Your task to perform on an android device: Show me popular games on the Play Store Image 0: 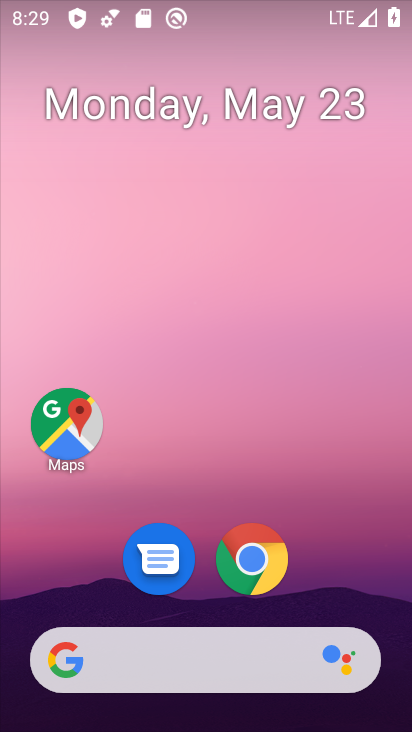
Step 0: drag from (215, 600) to (212, 135)
Your task to perform on an android device: Show me popular games on the Play Store Image 1: 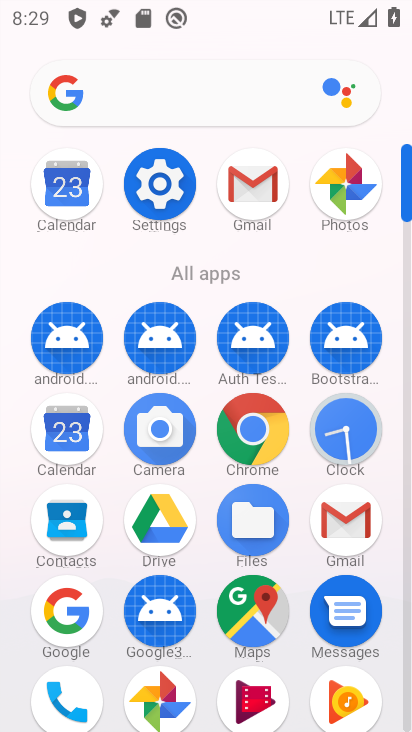
Step 1: drag from (294, 632) to (254, 196)
Your task to perform on an android device: Show me popular games on the Play Store Image 2: 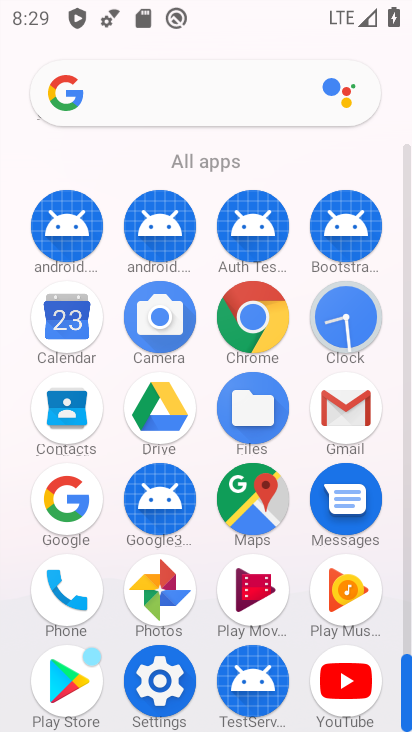
Step 2: click (63, 671)
Your task to perform on an android device: Show me popular games on the Play Store Image 3: 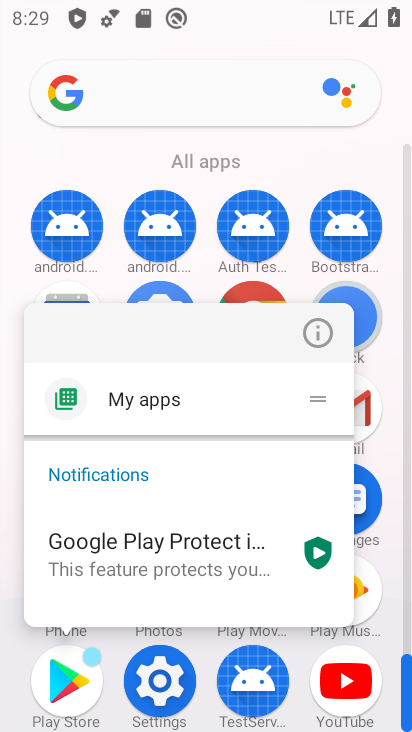
Step 3: click (47, 680)
Your task to perform on an android device: Show me popular games on the Play Store Image 4: 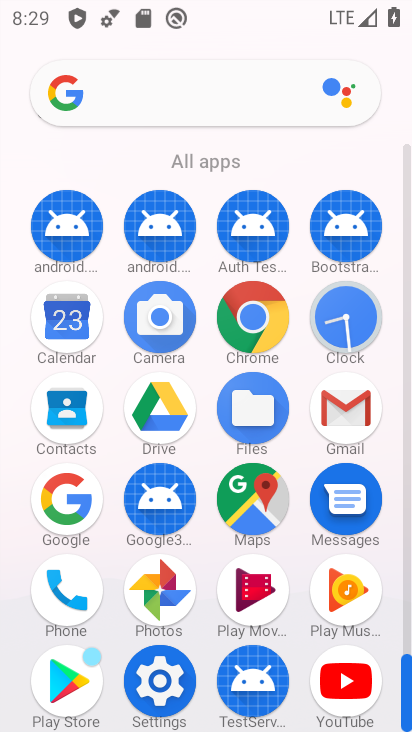
Step 4: click (77, 683)
Your task to perform on an android device: Show me popular games on the Play Store Image 5: 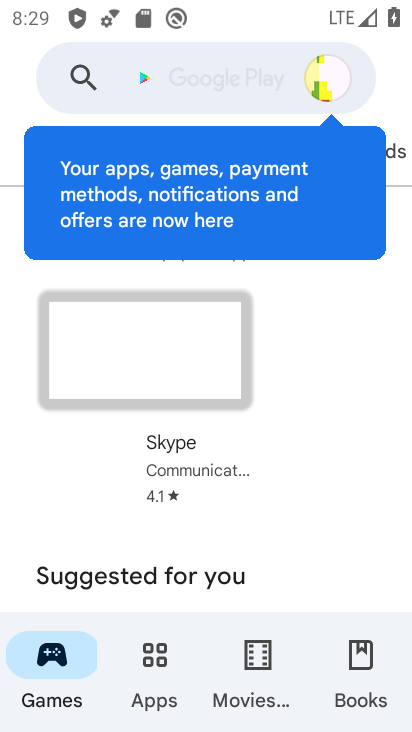
Step 5: click (146, 700)
Your task to perform on an android device: Show me popular games on the Play Store Image 6: 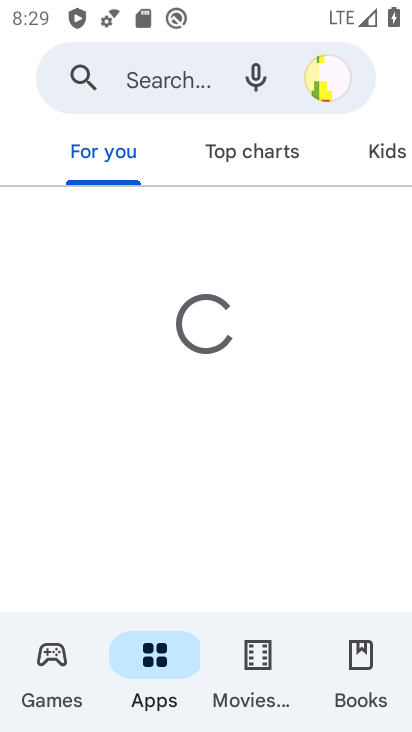
Step 6: click (63, 696)
Your task to perform on an android device: Show me popular games on the Play Store Image 7: 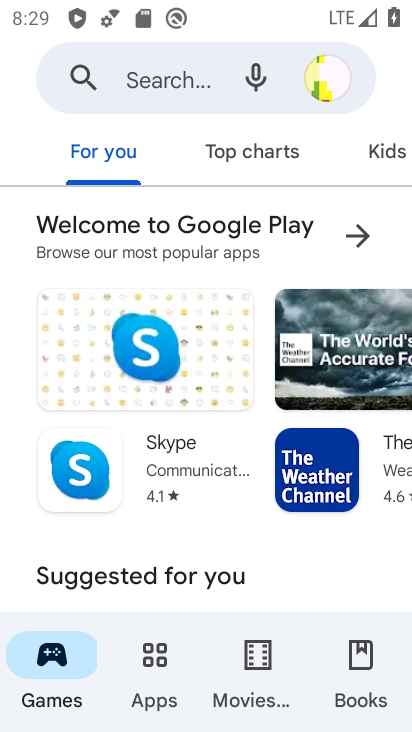
Step 7: click (244, 145)
Your task to perform on an android device: Show me popular games on the Play Store Image 8: 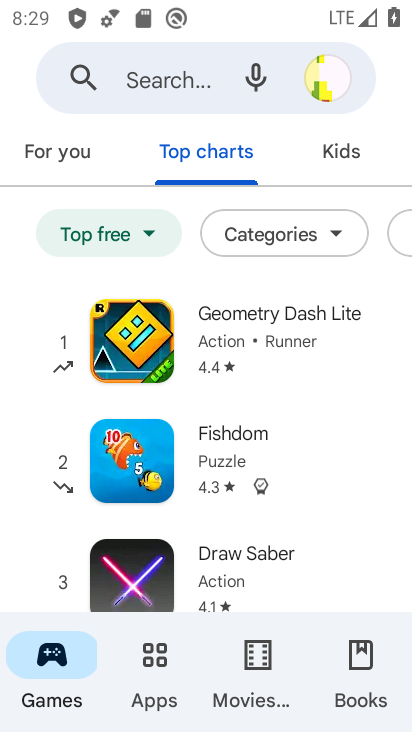
Step 8: task complete